Your task to perform on an android device: Open network settings Image 0: 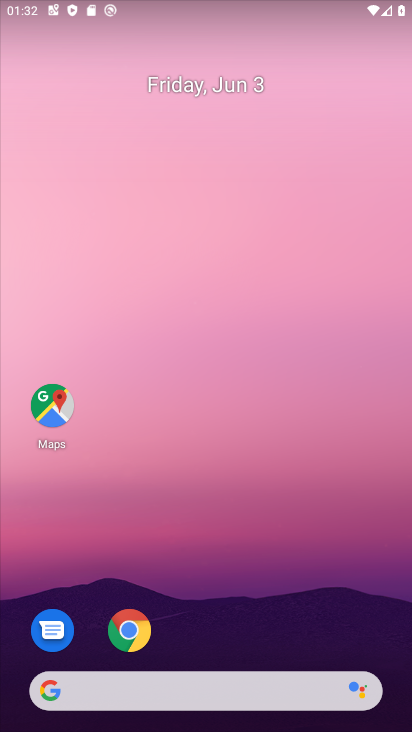
Step 0: drag from (242, 643) to (113, 9)
Your task to perform on an android device: Open network settings Image 1: 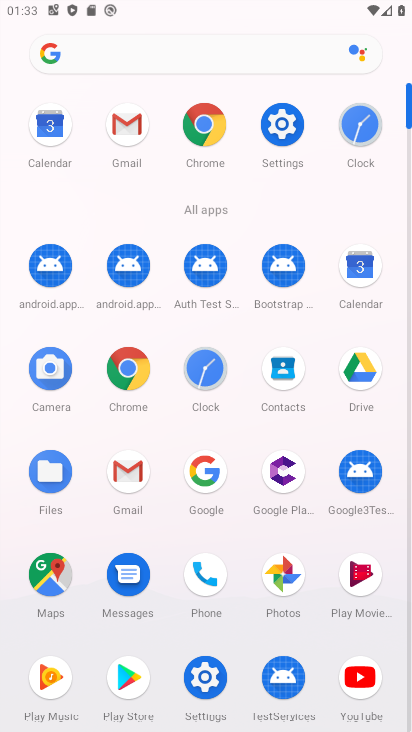
Step 1: click (281, 134)
Your task to perform on an android device: Open network settings Image 2: 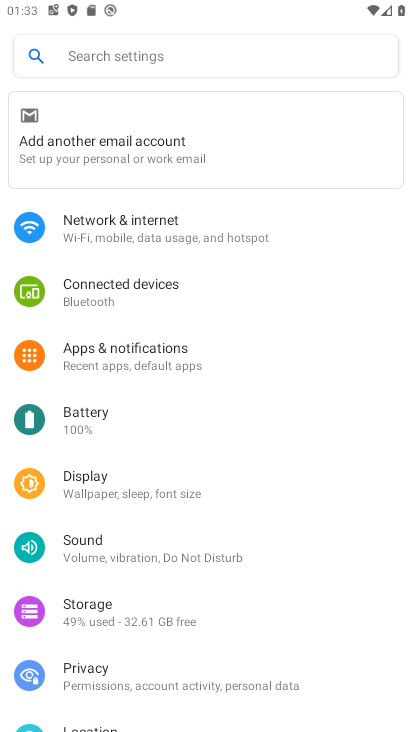
Step 2: click (214, 241)
Your task to perform on an android device: Open network settings Image 3: 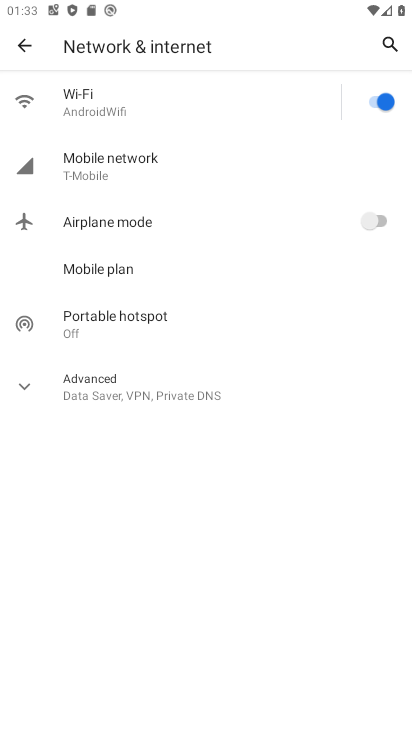
Step 3: task complete